Your task to perform on an android device: turn off location Image 0: 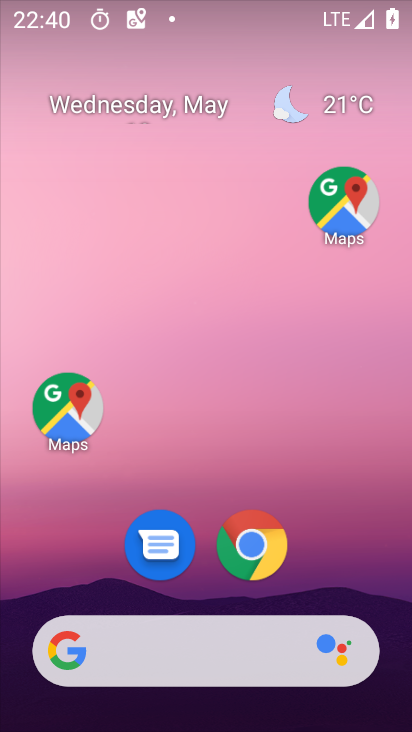
Step 0: drag from (326, 600) to (350, 91)
Your task to perform on an android device: turn off location Image 1: 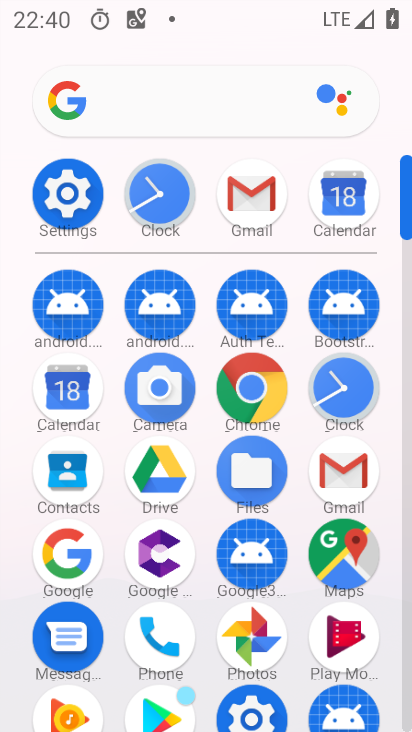
Step 1: click (51, 188)
Your task to perform on an android device: turn off location Image 2: 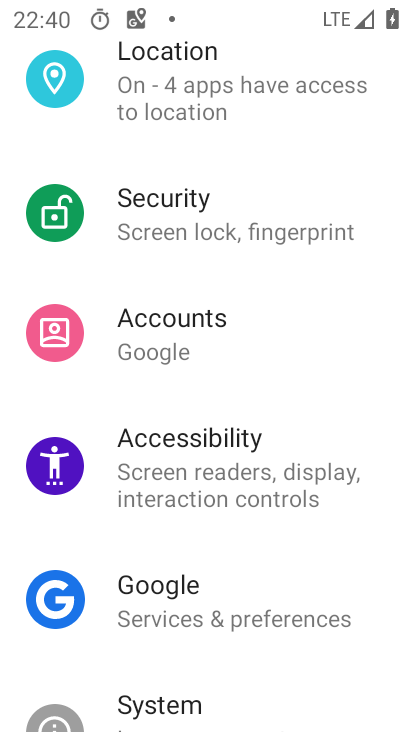
Step 2: click (231, 106)
Your task to perform on an android device: turn off location Image 3: 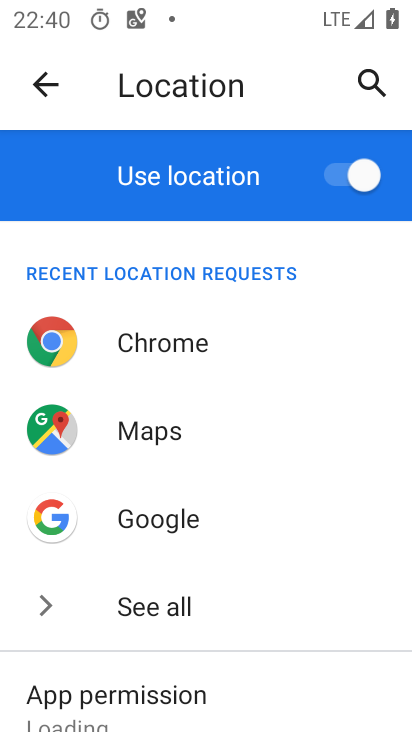
Step 3: drag from (169, 645) to (202, 454)
Your task to perform on an android device: turn off location Image 4: 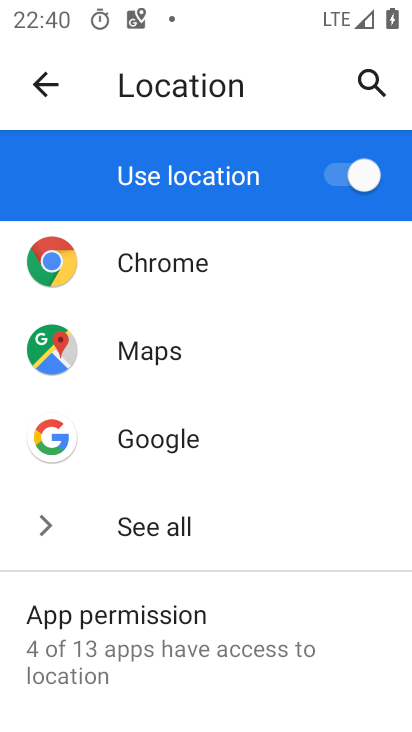
Step 4: click (357, 187)
Your task to perform on an android device: turn off location Image 5: 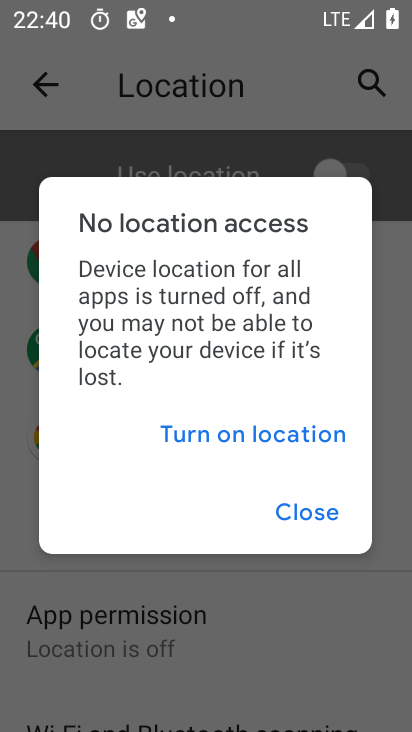
Step 5: task complete